Your task to perform on an android device: visit the assistant section in the google photos Image 0: 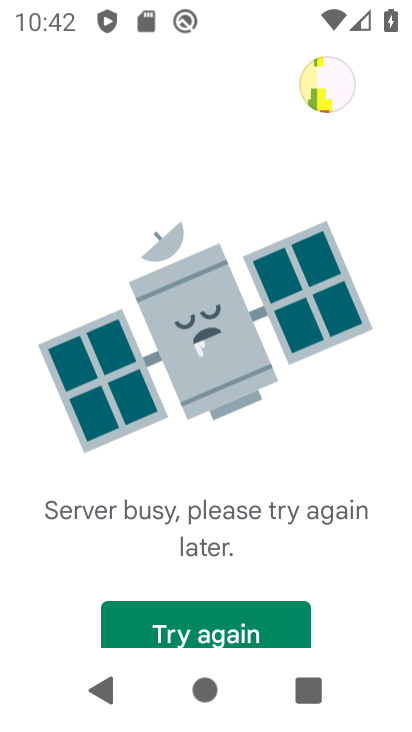
Step 0: press back button
Your task to perform on an android device: visit the assistant section in the google photos Image 1: 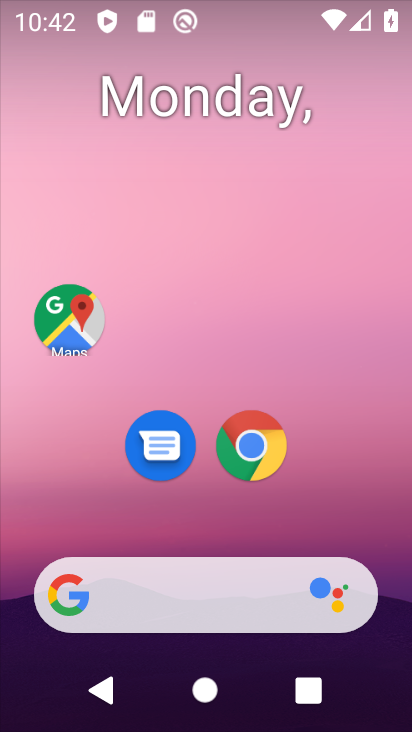
Step 1: click (134, 610)
Your task to perform on an android device: visit the assistant section in the google photos Image 2: 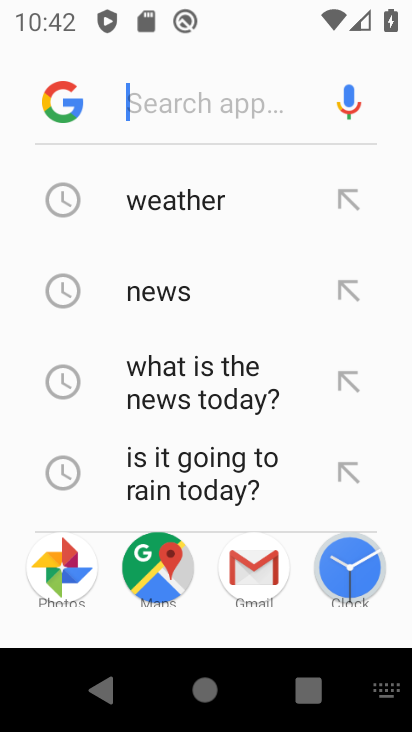
Step 2: drag from (217, 349) to (228, 118)
Your task to perform on an android device: visit the assistant section in the google photos Image 3: 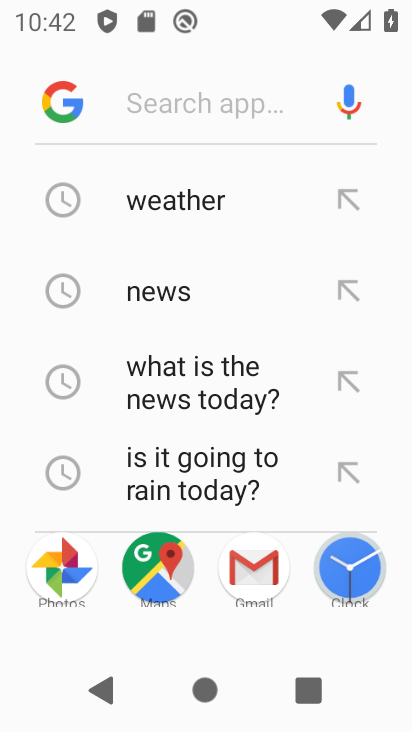
Step 3: press back button
Your task to perform on an android device: visit the assistant section in the google photos Image 4: 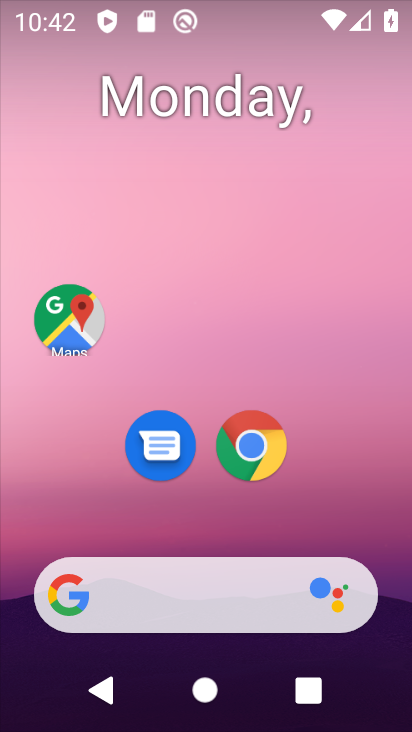
Step 4: drag from (245, 552) to (347, 73)
Your task to perform on an android device: visit the assistant section in the google photos Image 5: 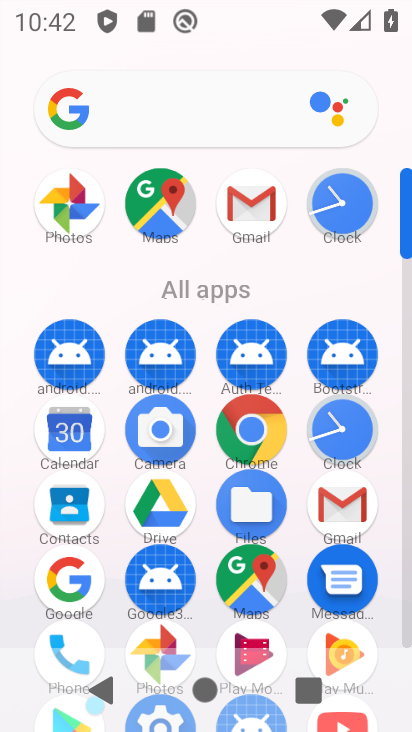
Step 5: drag from (169, 562) to (243, 183)
Your task to perform on an android device: visit the assistant section in the google photos Image 6: 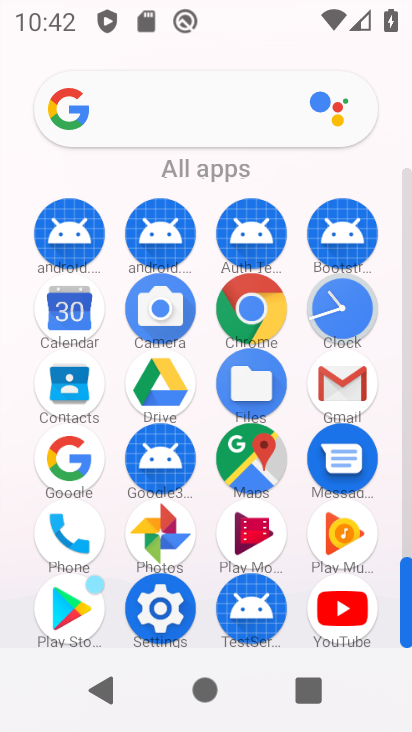
Step 6: click (167, 525)
Your task to perform on an android device: visit the assistant section in the google photos Image 7: 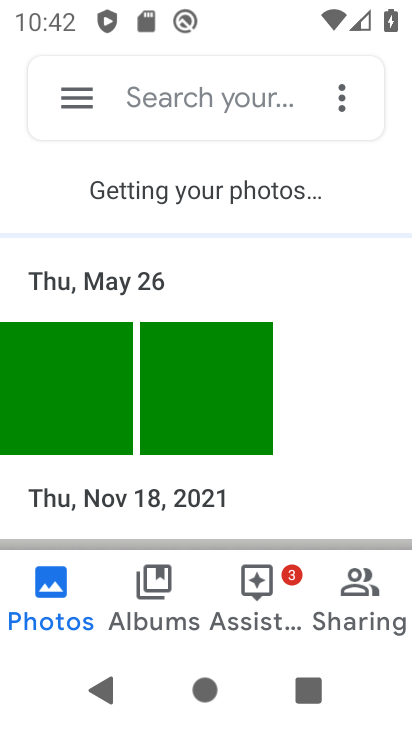
Step 7: click (251, 597)
Your task to perform on an android device: visit the assistant section in the google photos Image 8: 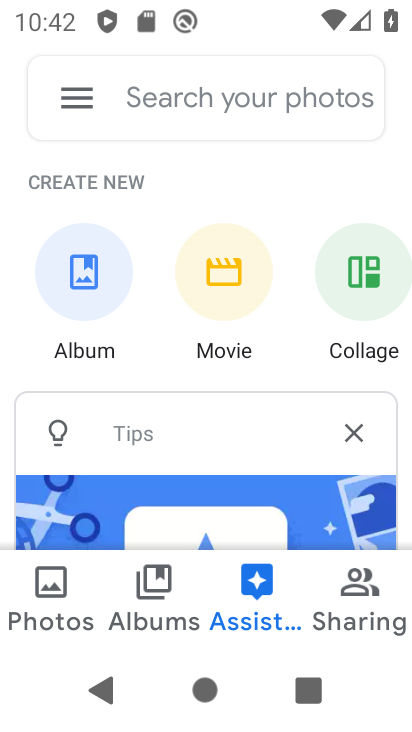
Step 8: task complete